Your task to perform on an android device: Go to sound settings Image 0: 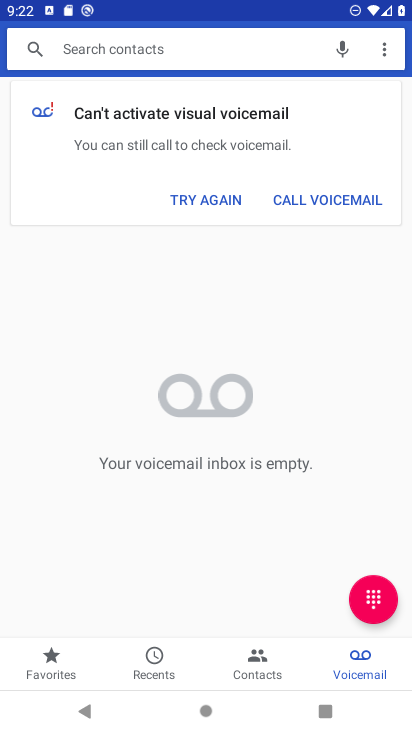
Step 0: press home button
Your task to perform on an android device: Go to sound settings Image 1: 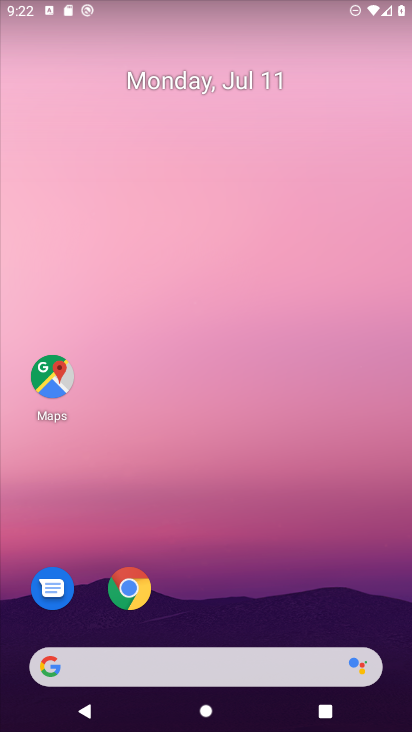
Step 1: drag from (360, 606) to (347, 106)
Your task to perform on an android device: Go to sound settings Image 2: 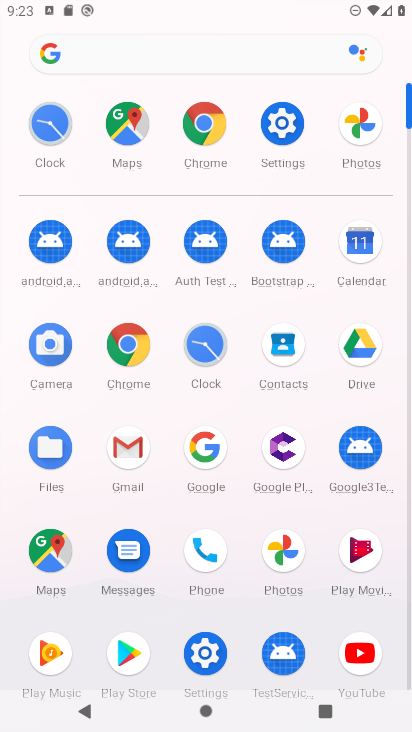
Step 2: click (280, 125)
Your task to perform on an android device: Go to sound settings Image 3: 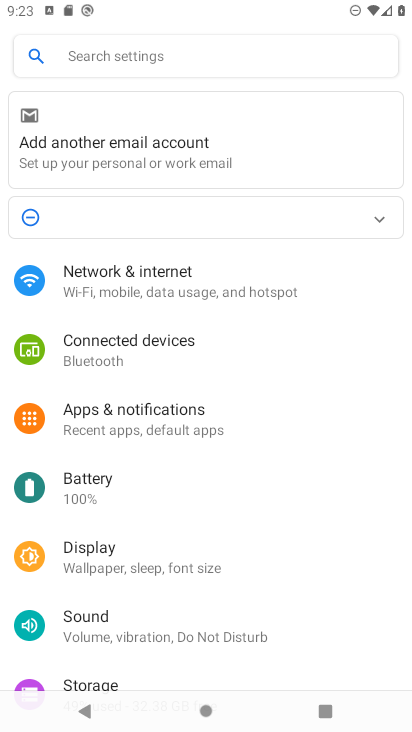
Step 3: click (125, 617)
Your task to perform on an android device: Go to sound settings Image 4: 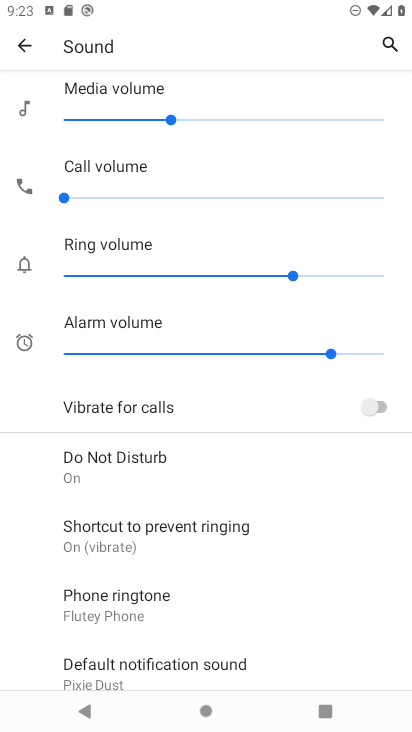
Step 4: task complete